Your task to perform on an android device: Open Maps and search for coffee Image 0: 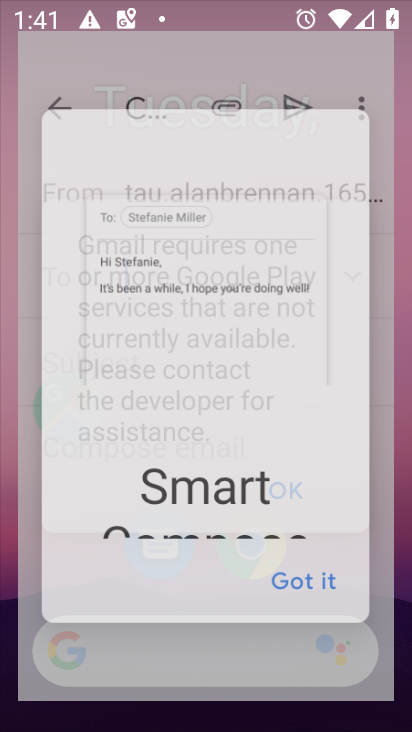
Step 0: drag from (363, 541) to (301, 83)
Your task to perform on an android device: Open Maps and search for coffee Image 1: 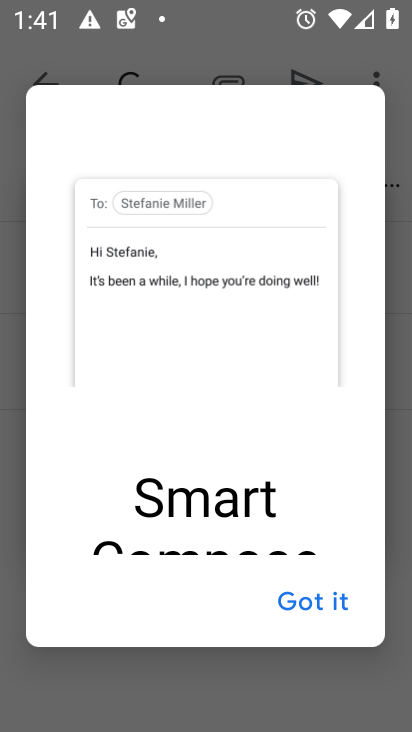
Step 1: press home button
Your task to perform on an android device: Open Maps and search for coffee Image 2: 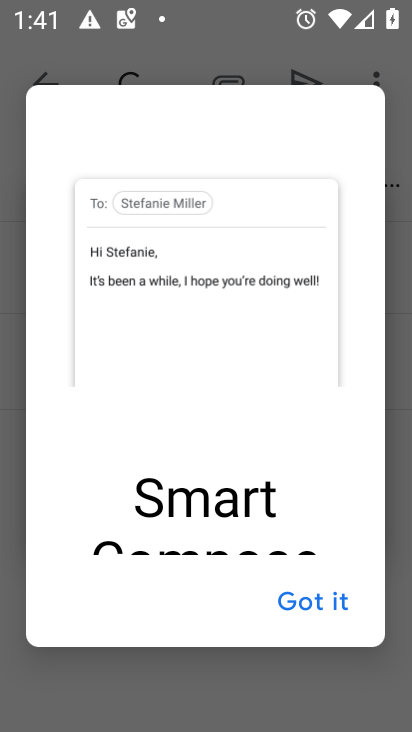
Step 2: press home button
Your task to perform on an android device: Open Maps and search for coffee Image 3: 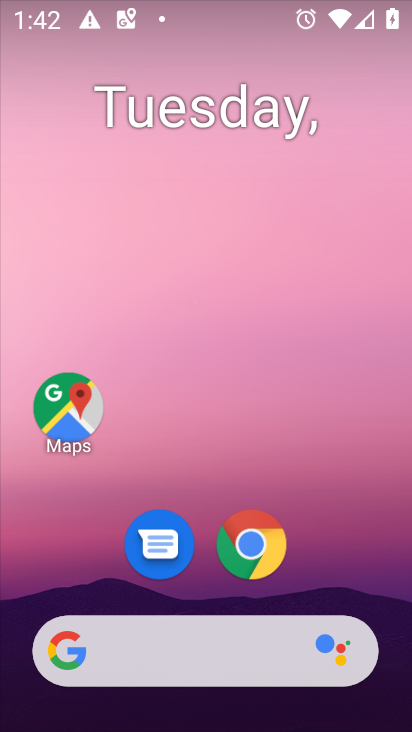
Step 3: drag from (345, 536) to (293, 68)
Your task to perform on an android device: Open Maps and search for coffee Image 4: 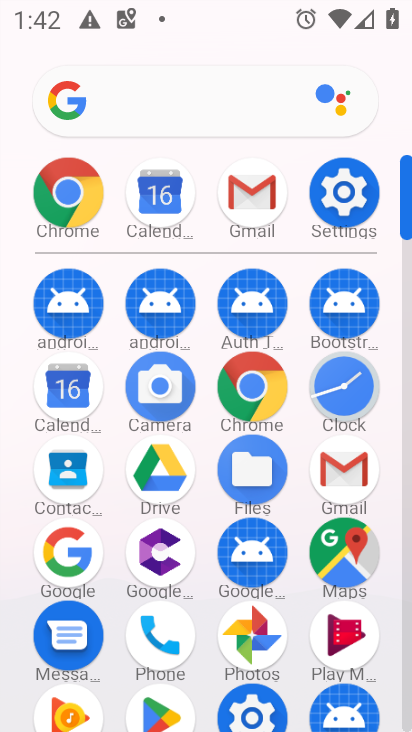
Step 4: click (346, 563)
Your task to perform on an android device: Open Maps and search for coffee Image 5: 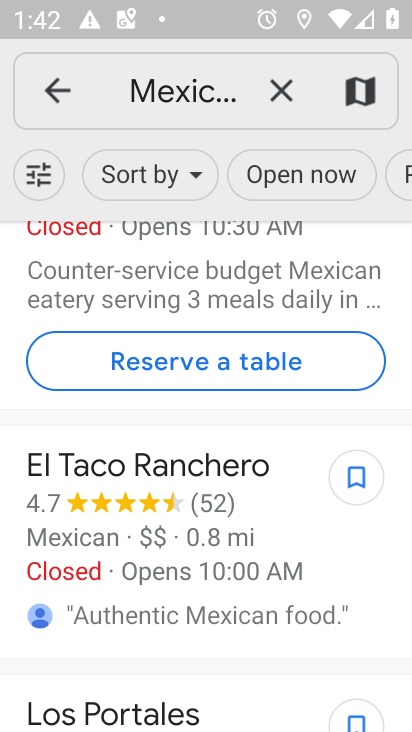
Step 5: click (280, 91)
Your task to perform on an android device: Open Maps and search for coffee Image 6: 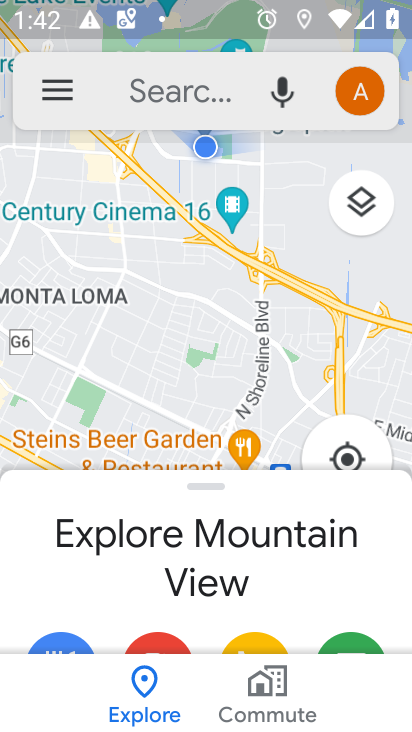
Step 6: click (168, 107)
Your task to perform on an android device: Open Maps and search for coffee Image 7: 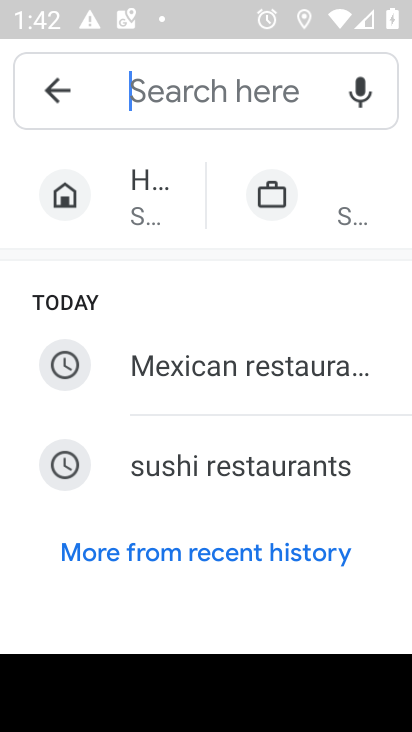
Step 7: type "coffee"
Your task to perform on an android device: Open Maps and search for coffee Image 8: 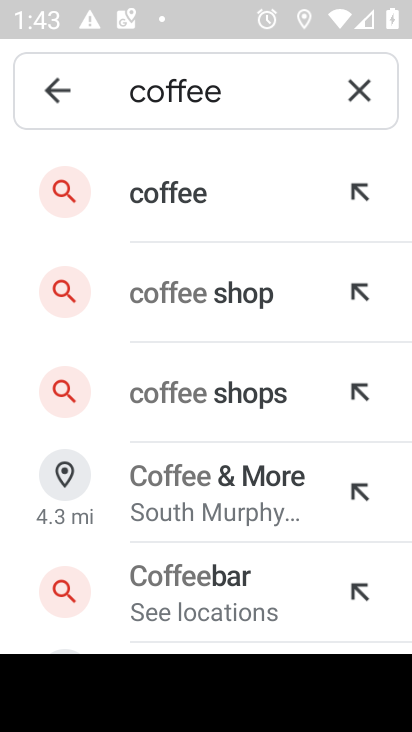
Step 8: click (148, 180)
Your task to perform on an android device: Open Maps and search for coffee Image 9: 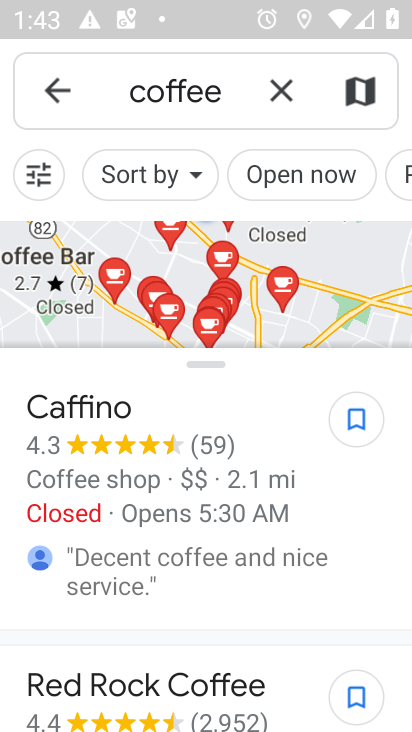
Step 9: task complete